Your task to perform on an android device: toggle translation in the chrome app Image 0: 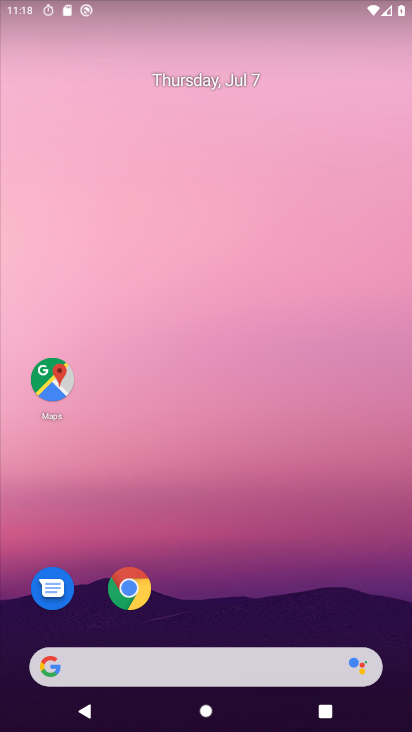
Step 0: click (124, 586)
Your task to perform on an android device: toggle translation in the chrome app Image 1: 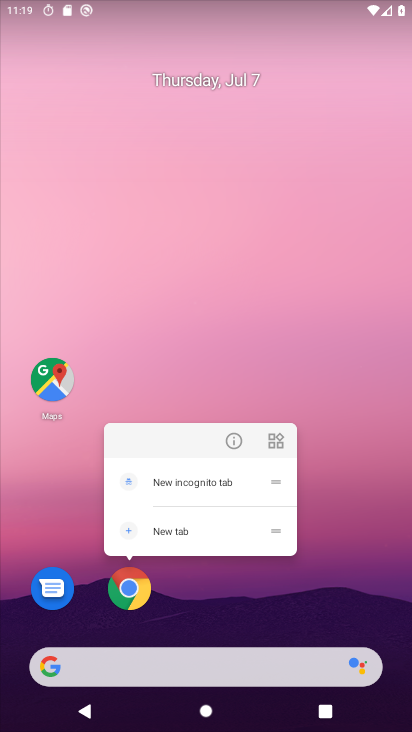
Step 1: click (131, 573)
Your task to perform on an android device: toggle translation in the chrome app Image 2: 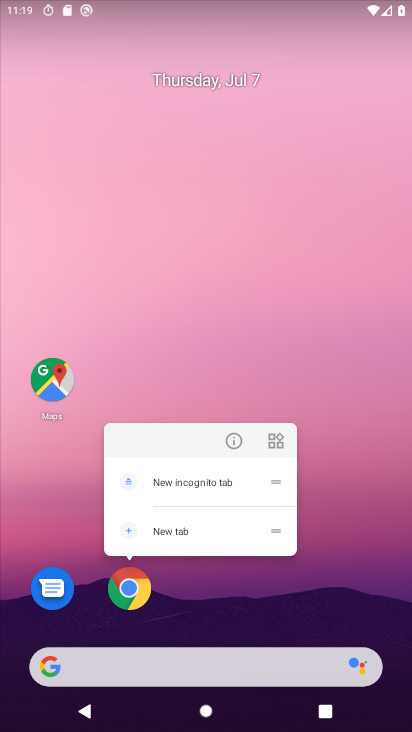
Step 2: click (128, 589)
Your task to perform on an android device: toggle translation in the chrome app Image 3: 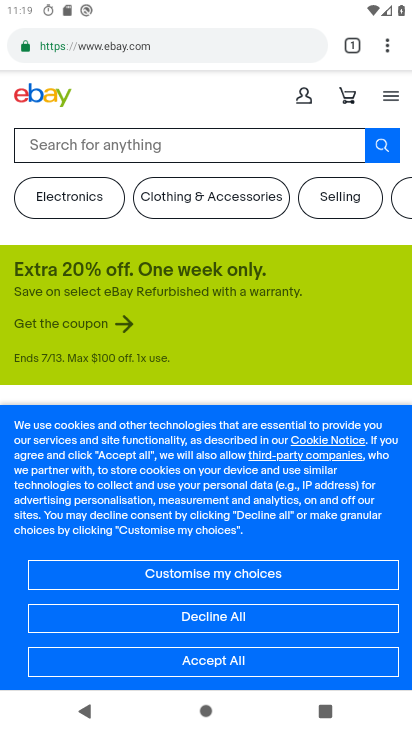
Step 3: drag from (387, 49) to (223, 548)
Your task to perform on an android device: toggle translation in the chrome app Image 4: 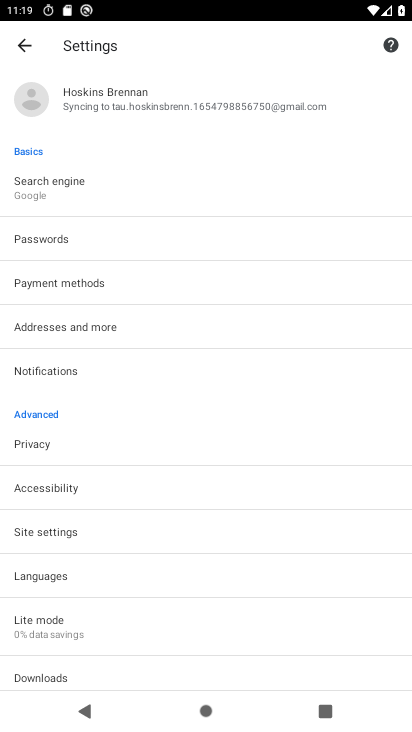
Step 4: click (79, 565)
Your task to perform on an android device: toggle translation in the chrome app Image 5: 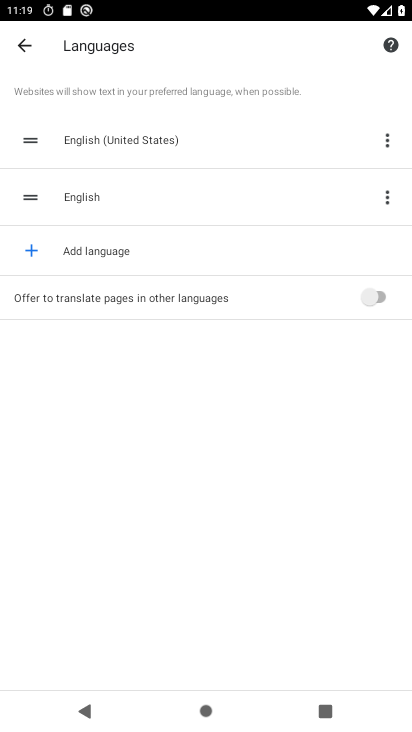
Step 5: click (384, 296)
Your task to perform on an android device: toggle translation in the chrome app Image 6: 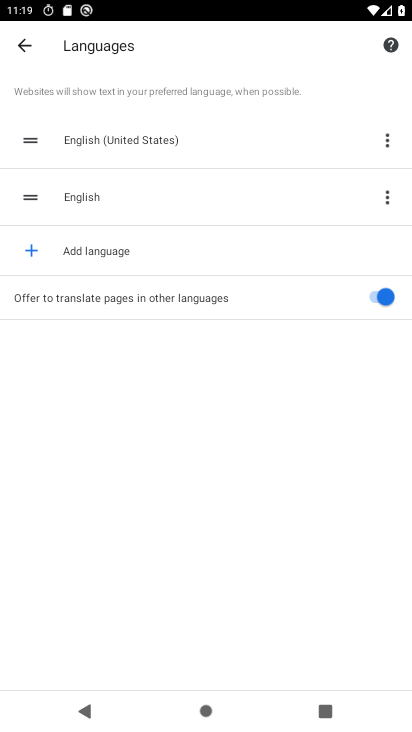
Step 6: task complete